Your task to perform on an android device: Go to calendar. Show me events next week Image 0: 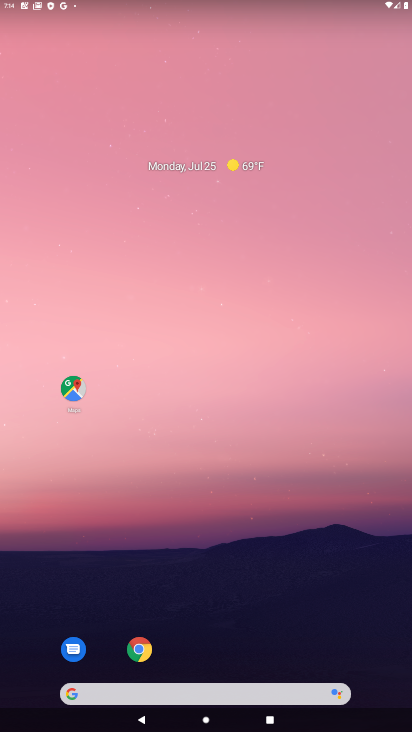
Step 0: drag from (337, 517) to (384, 0)
Your task to perform on an android device: Go to calendar. Show me events next week Image 1: 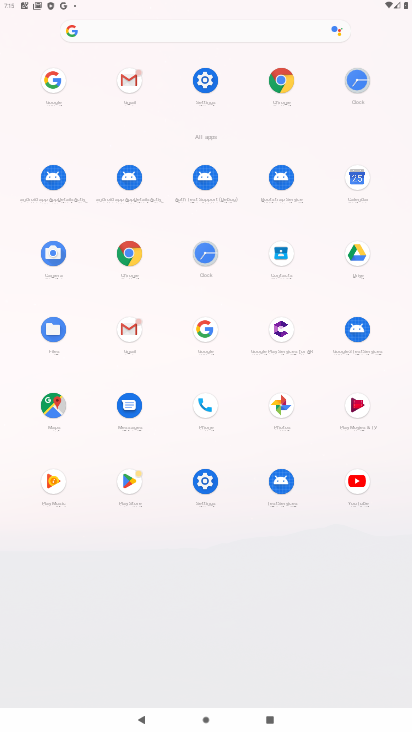
Step 1: click (350, 169)
Your task to perform on an android device: Go to calendar. Show me events next week Image 2: 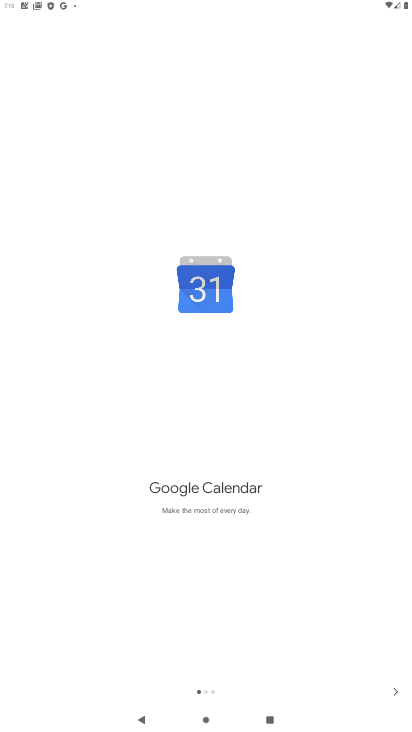
Step 2: click (388, 690)
Your task to perform on an android device: Go to calendar. Show me events next week Image 3: 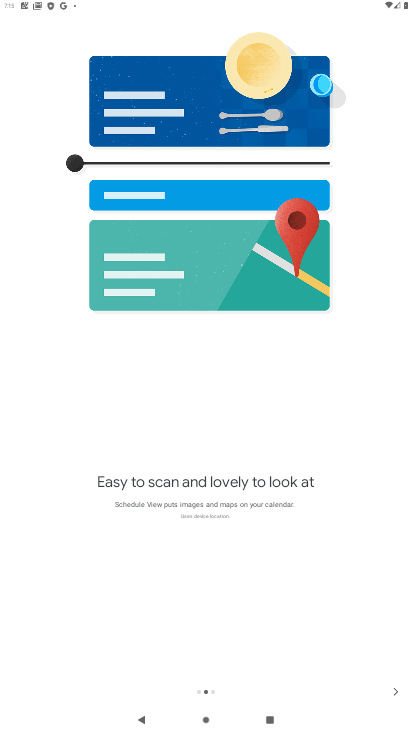
Step 3: click (391, 690)
Your task to perform on an android device: Go to calendar. Show me events next week Image 4: 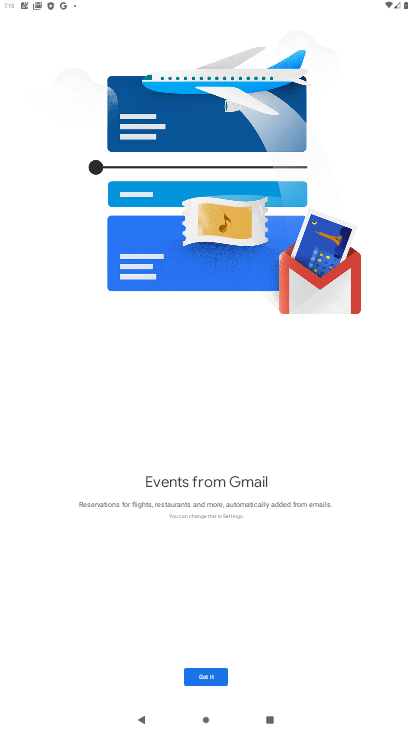
Step 4: click (205, 678)
Your task to perform on an android device: Go to calendar. Show me events next week Image 5: 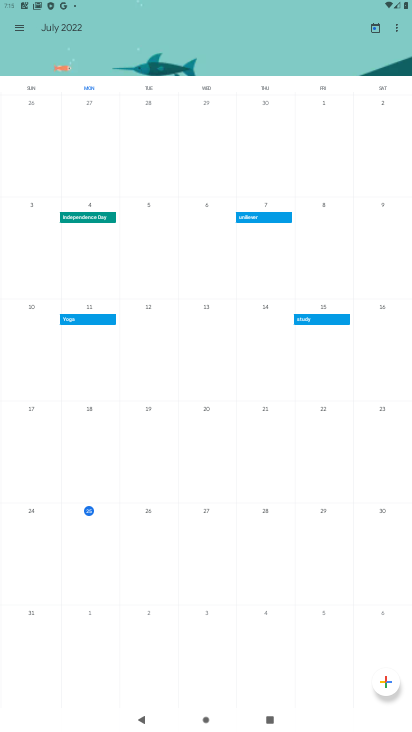
Step 5: click (89, 617)
Your task to perform on an android device: Go to calendar. Show me events next week Image 6: 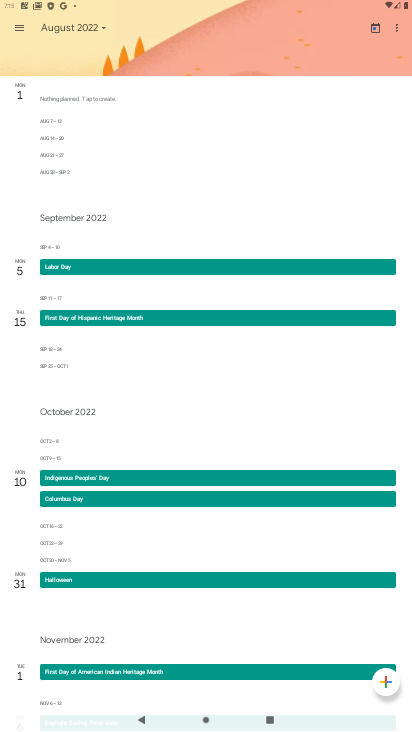
Step 6: task complete